Your task to perform on an android device: change notifications settings Image 0: 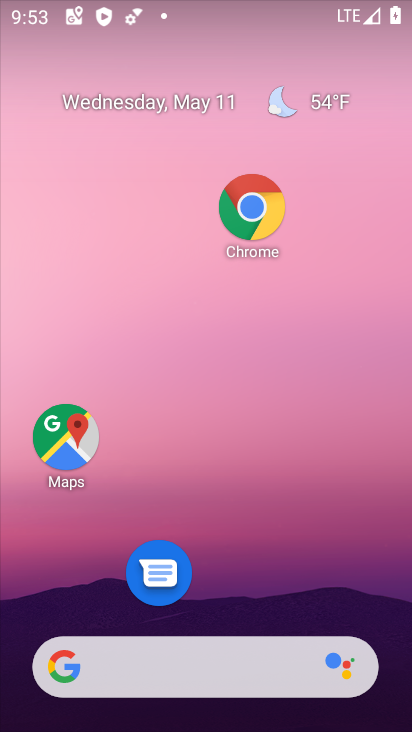
Step 0: drag from (149, 632) to (239, 1)
Your task to perform on an android device: change notifications settings Image 1: 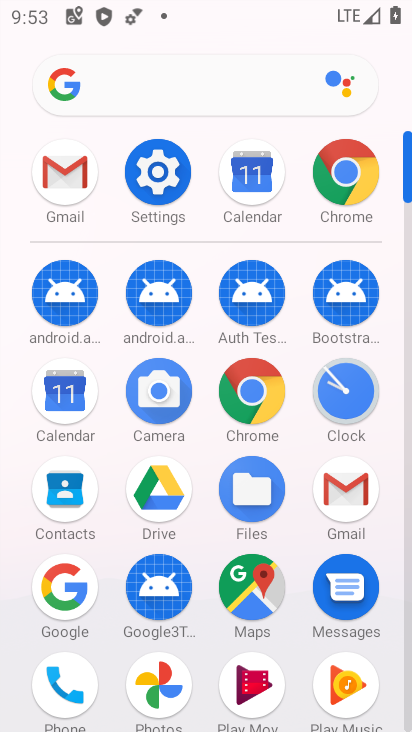
Step 1: drag from (232, 582) to (279, 167)
Your task to perform on an android device: change notifications settings Image 2: 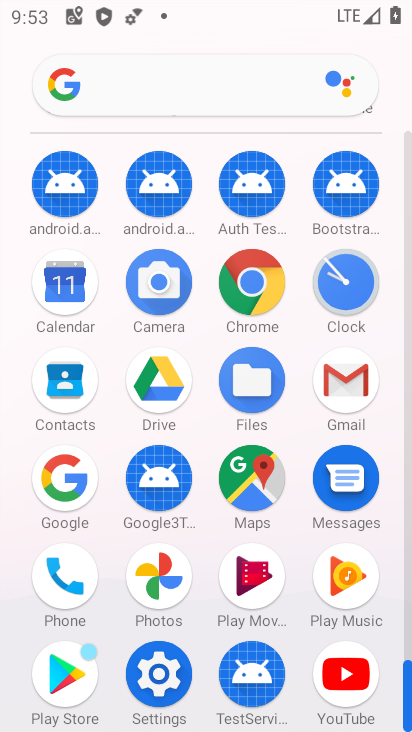
Step 2: click (160, 666)
Your task to perform on an android device: change notifications settings Image 3: 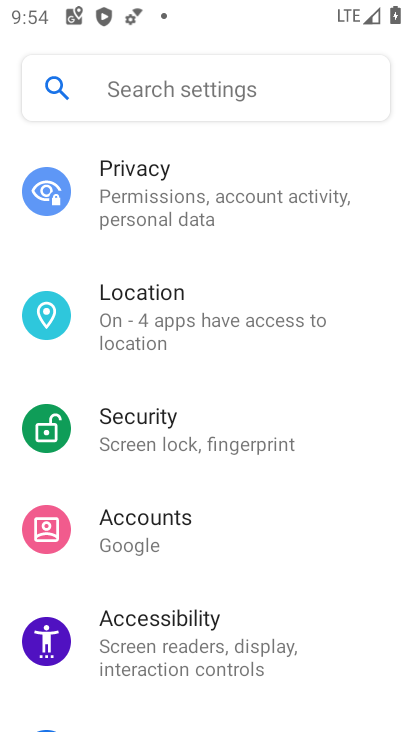
Step 3: drag from (205, 431) to (212, 731)
Your task to perform on an android device: change notifications settings Image 4: 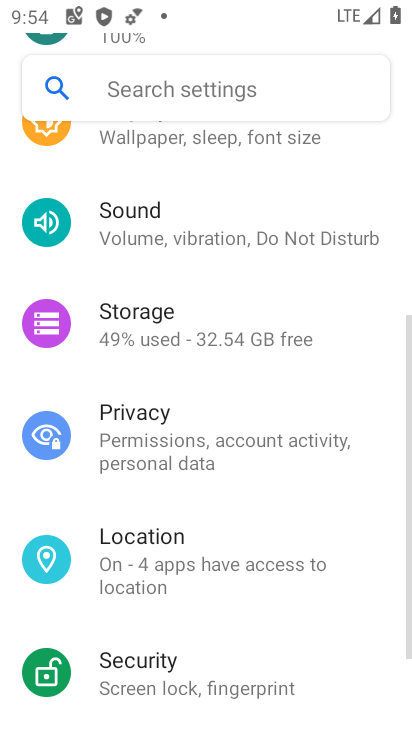
Step 4: drag from (180, 276) to (212, 712)
Your task to perform on an android device: change notifications settings Image 5: 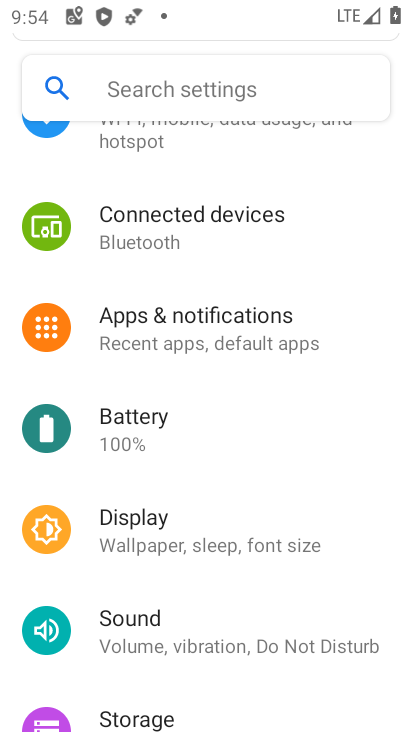
Step 5: click (269, 325)
Your task to perform on an android device: change notifications settings Image 6: 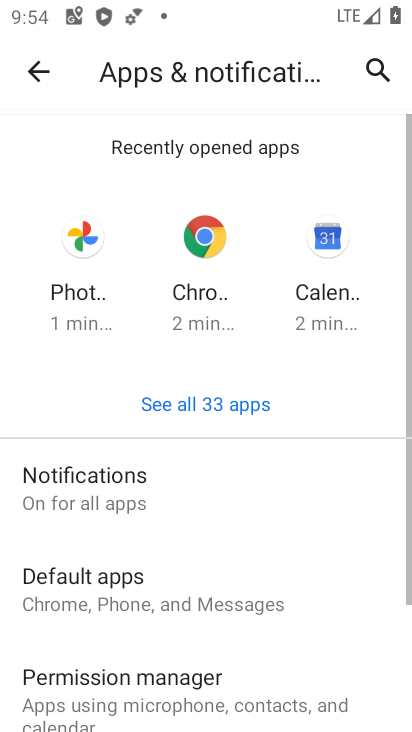
Step 6: drag from (300, 612) to (295, 285)
Your task to perform on an android device: change notifications settings Image 7: 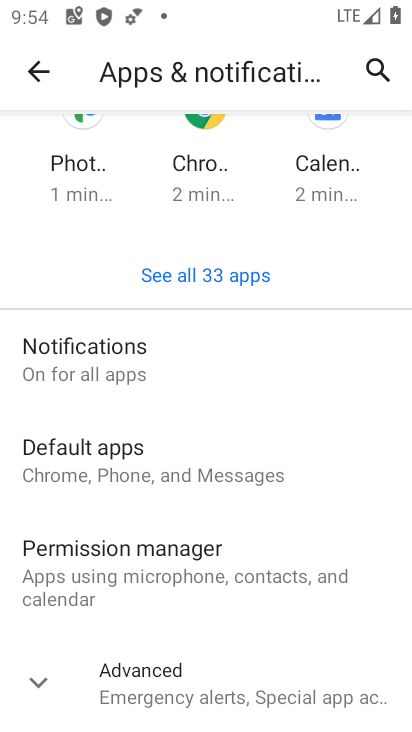
Step 7: click (192, 350)
Your task to perform on an android device: change notifications settings Image 8: 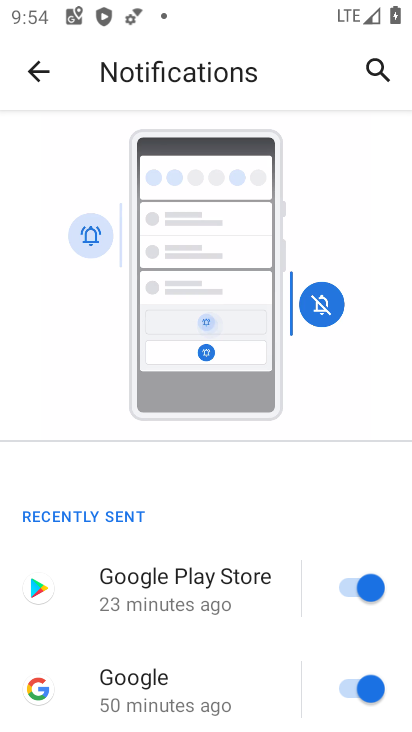
Step 8: drag from (255, 682) to (296, 304)
Your task to perform on an android device: change notifications settings Image 9: 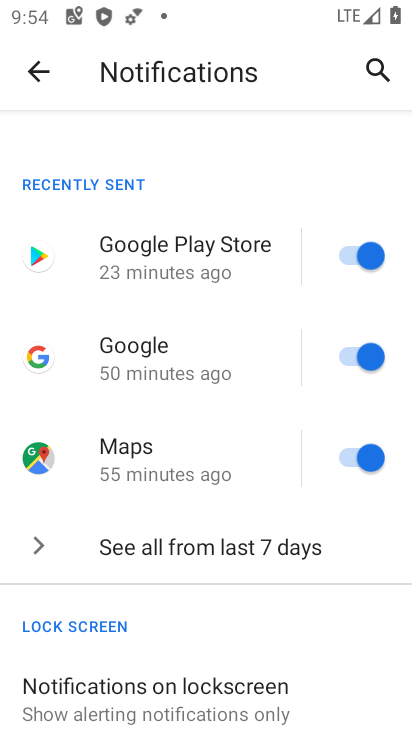
Step 9: click (352, 251)
Your task to perform on an android device: change notifications settings Image 10: 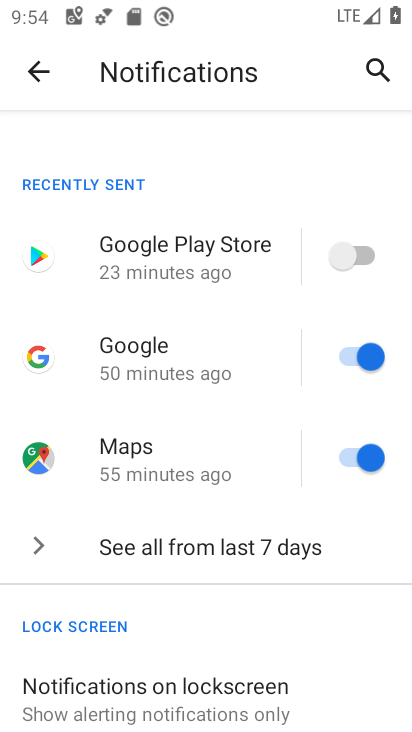
Step 10: click (359, 361)
Your task to perform on an android device: change notifications settings Image 11: 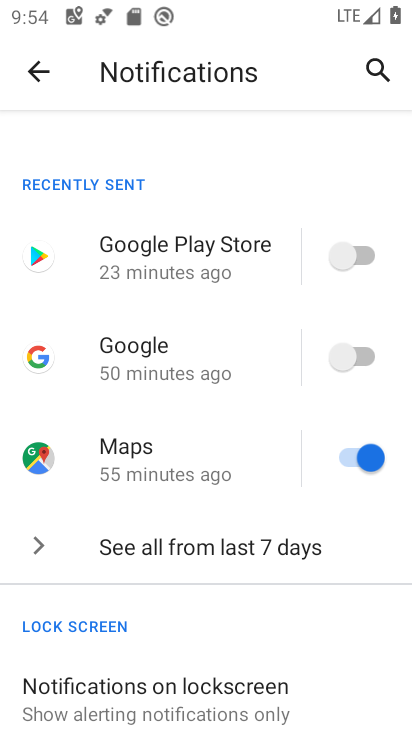
Step 11: click (355, 458)
Your task to perform on an android device: change notifications settings Image 12: 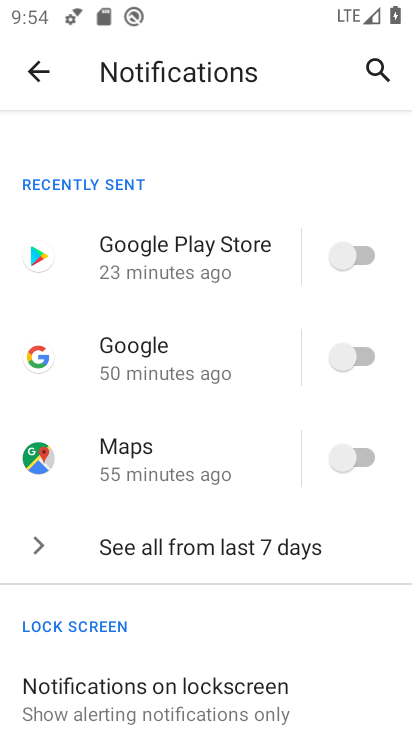
Step 12: task complete